Your task to perform on an android device: Go to settings Image 0: 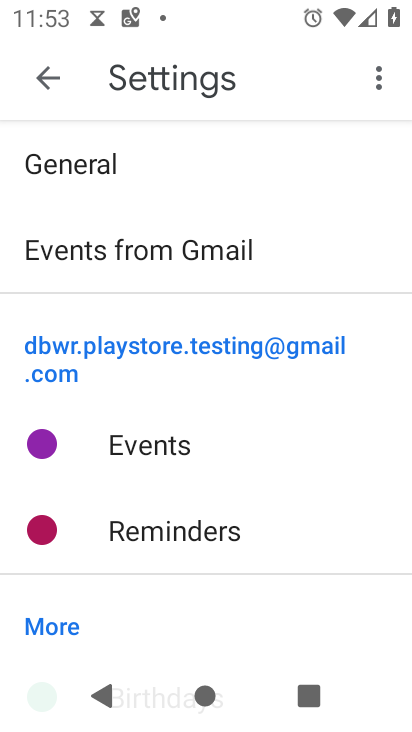
Step 0: press home button
Your task to perform on an android device: Go to settings Image 1: 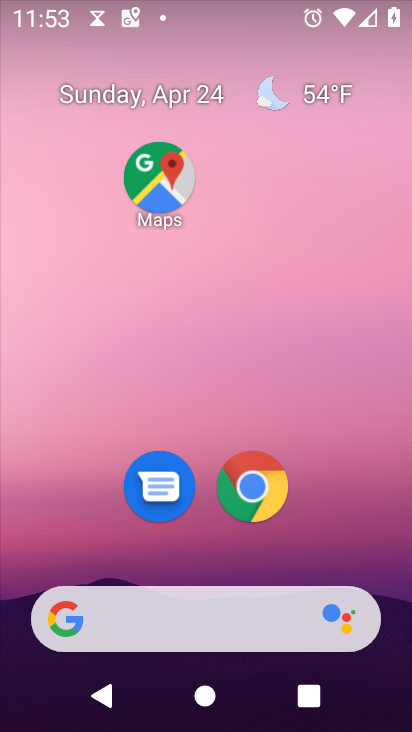
Step 1: drag from (258, 530) to (261, 198)
Your task to perform on an android device: Go to settings Image 2: 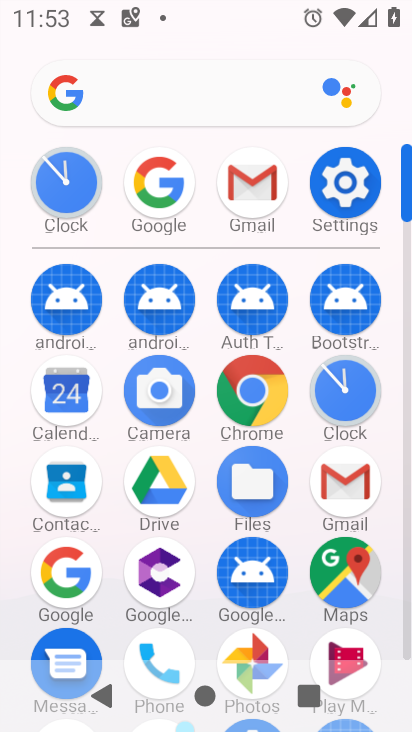
Step 2: click (356, 211)
Your task to perform on an android device: Go to settings Image 3: 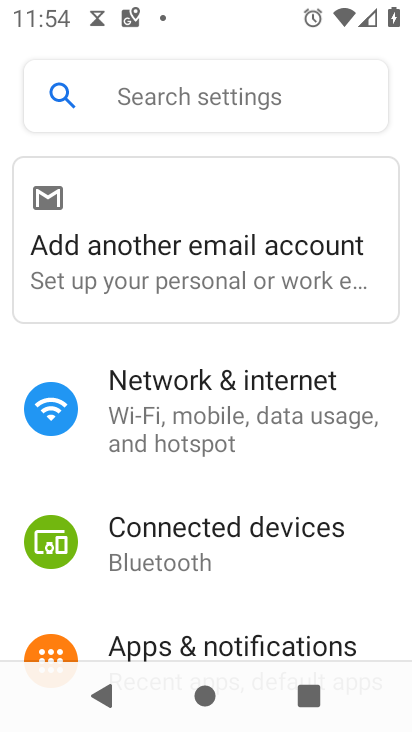
Step 3: task complete